Your task to perform on an android device: Open Google Chrome Image 0: 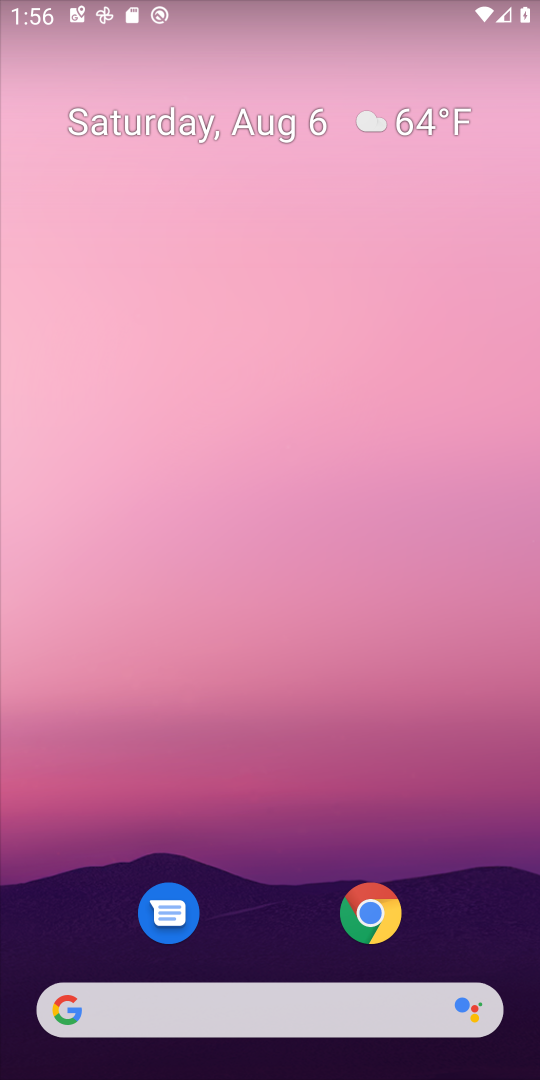
Step 0: press home button
Your task to perform on an android device: Open Google Chrome Image 1: 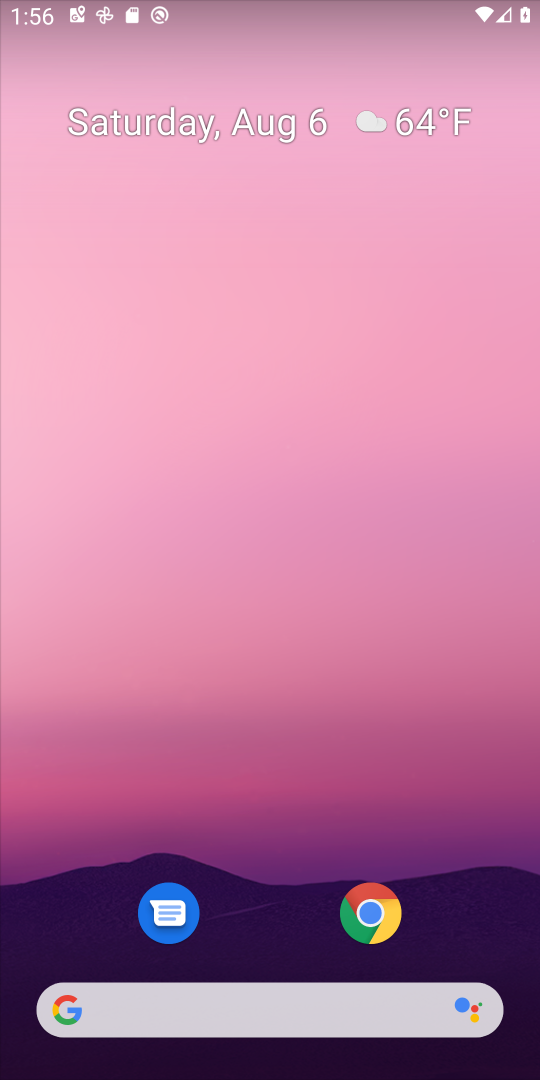
Step 1: drag from (464, 925) to (501, 242)
Your task to perform on an android device: Open Google Chrome Image 2: 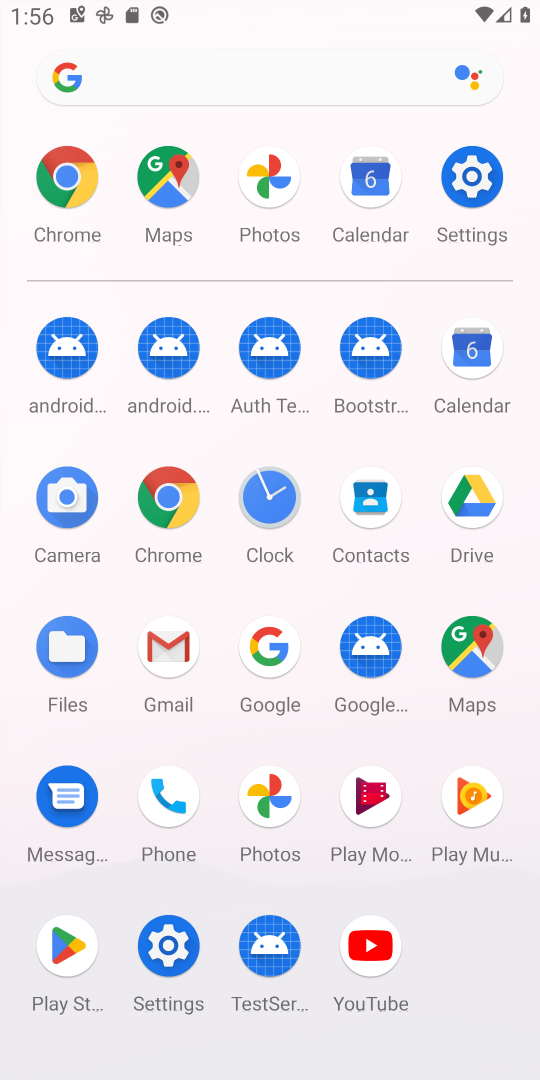
Step 2: click (166, 499)
Your task to perform on an android device: Open Google Chrome Image 3: 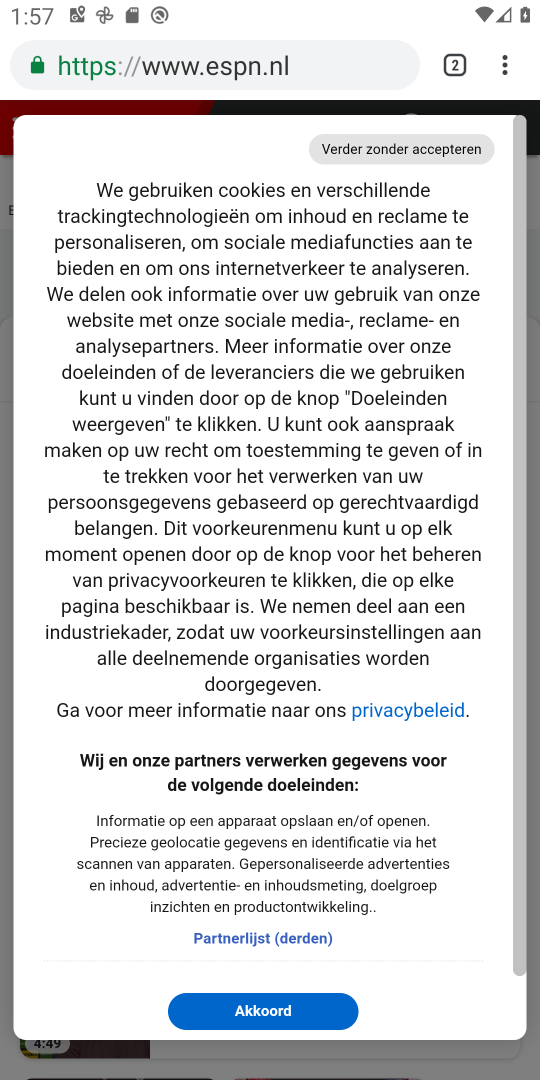
Step 3: task complete